Your task to perform on an android device: Open Youtube and go to the subscriptions tab Image 0: 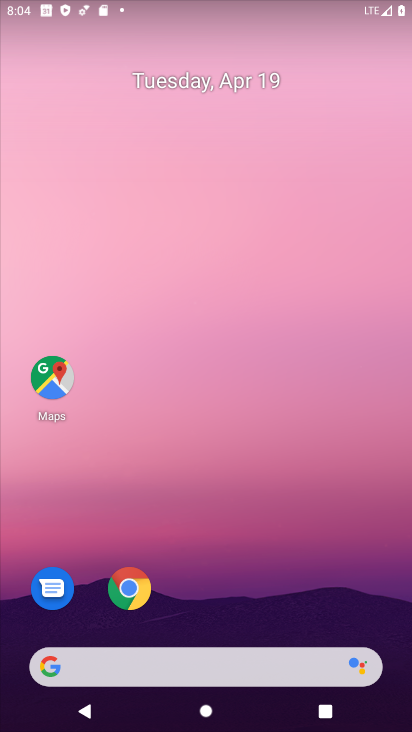
Step 0: drag from (211, 728) to (201, 12)
Your task to perform on an android device: Open Youtube and go to the subscriptions tab Image 1: 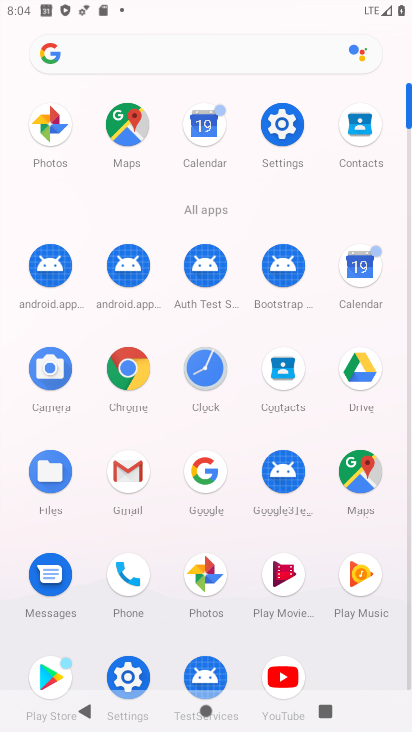
Step 1: click (286, 670)
Your task to perform on an android device: Open Youtube and go to the subscriptions tab Image 2: 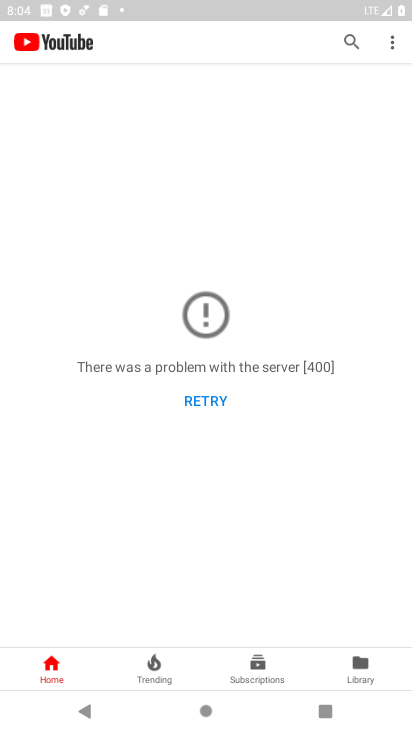
Step 2: click (260, 668)
Your task to perform on an android device: Open Youtube and go to the subscriptions tab Image 3: 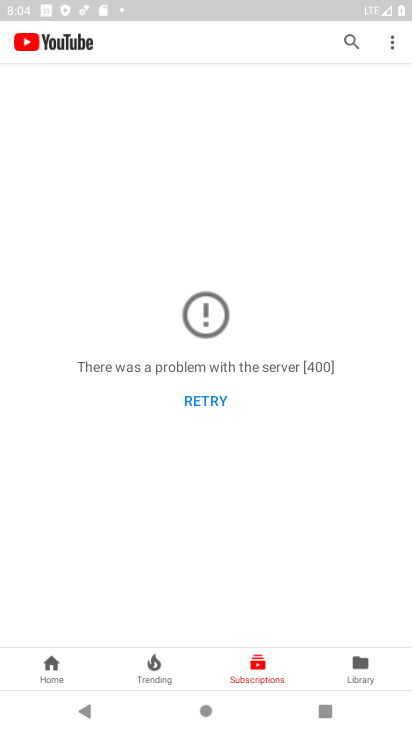
Step 3: task complete